Your task to perform on an android device: Open maps Image 0: 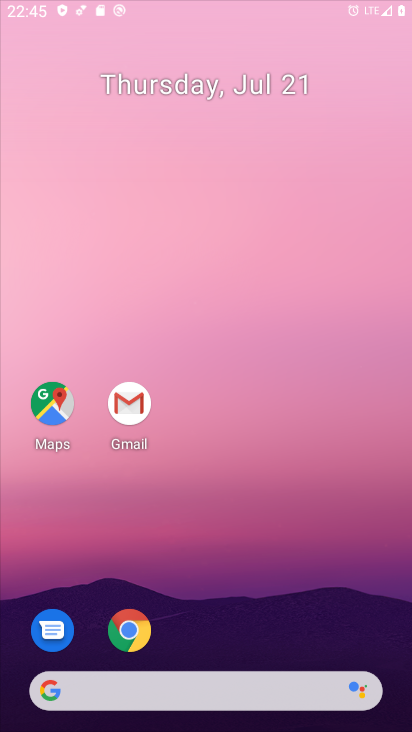
Step 0: drag from (202, 435) to (202, 174)
Your task to perform on an android device: Open maps Image 1: 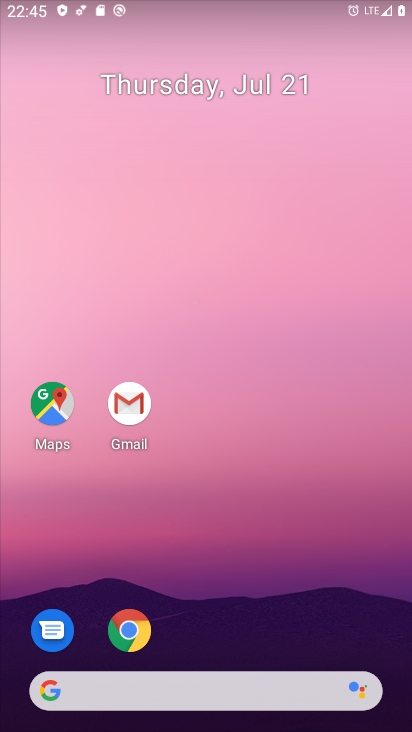
Step 1: click (41, 421)
Your task to perform on an android device: Open maps Image 2: 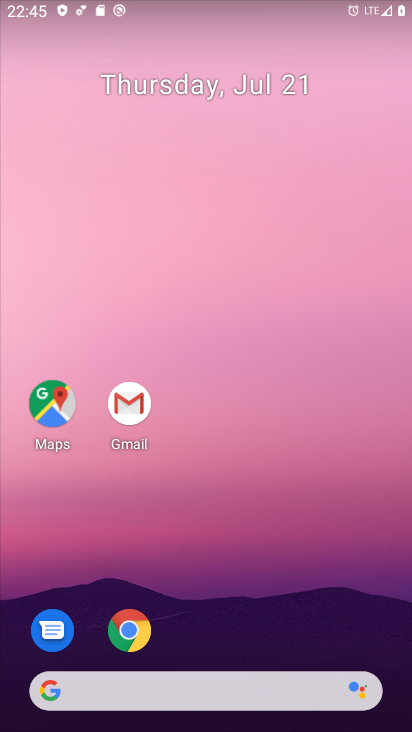
Step 2: click (49, 411)
Your task to perform on an android device: Open maps Image 3: 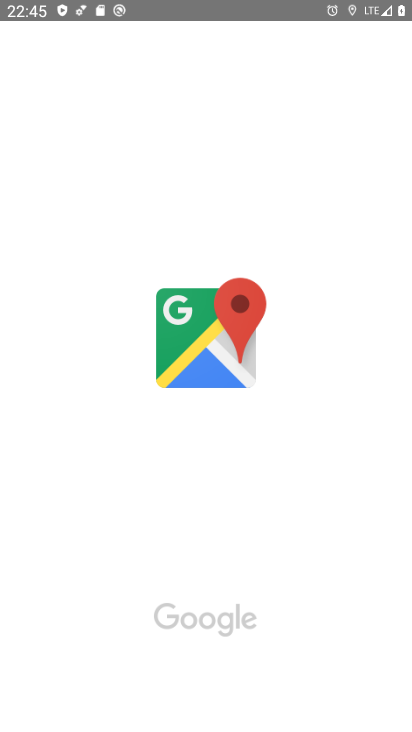
Step 3: click (61, 415)
Your task to perform on an android device: Open maps Image 4: 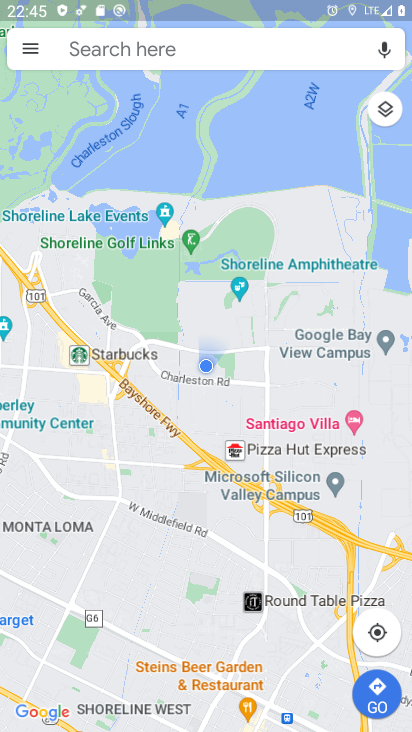
Step 4: task complete